Your task to perform on an android device: change your default location settings in chrome Image 0: 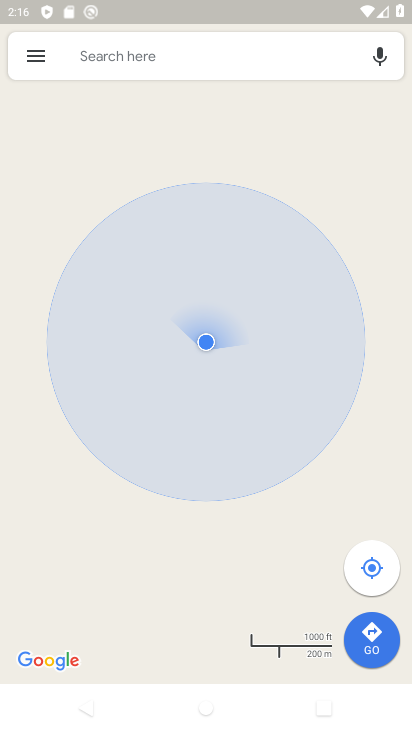
Step 0: press home button
Your task to perform on an android device: change your default location settings in chrome Image 1: 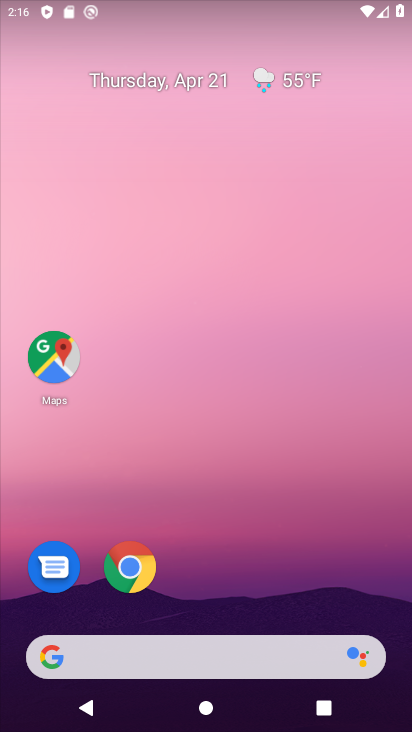
Step 1: drag from (242, 589) to (220, 59)
Your task to perform on an android device: change your default location settings in chrome Image 2: 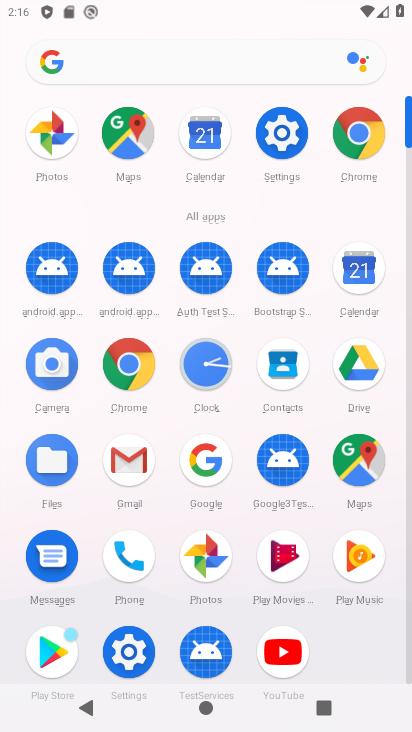
Step 2: click (130, 357)
Your task to perform on an android device: change your default location settings in chrome Image 3: 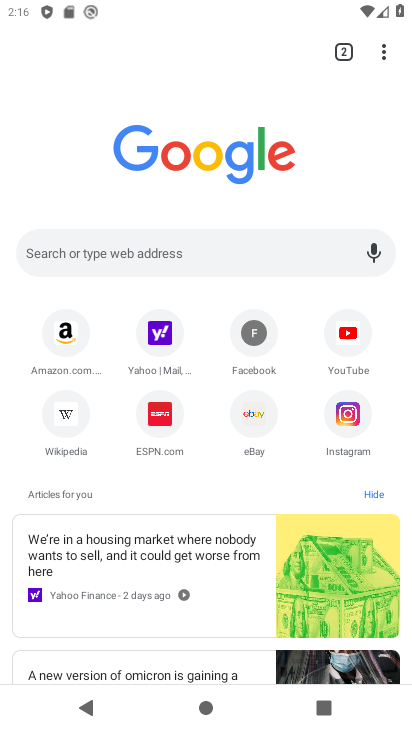
Step 3: drag from (382, 44) to (208, 500)
Your task to perform on an android device: change your default location settings in chrome Image 4: 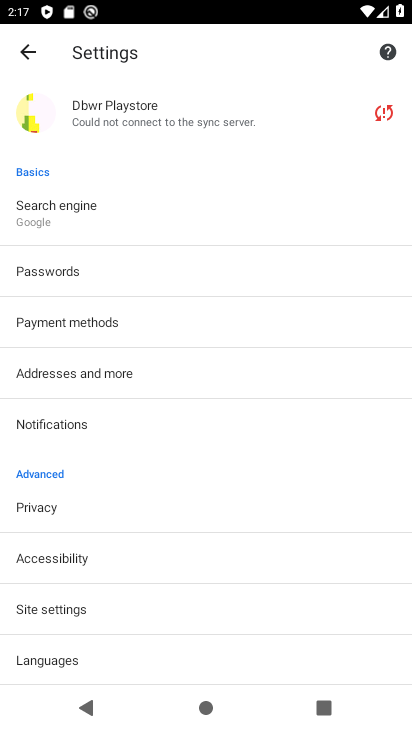
Step 4: drag from (294, 615) to (284, 336)
Your task to perform on an android device: change your default location settings in chrome Image 5: 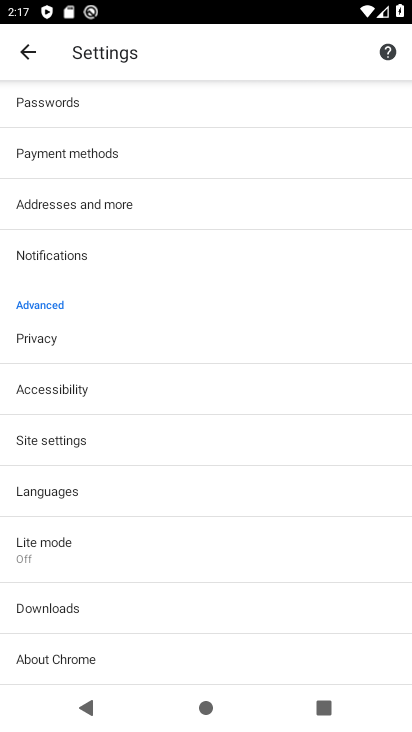
Step 5: click (47, 438)
Your task to perform on an android device: change your default location settings in chrome Image 6: 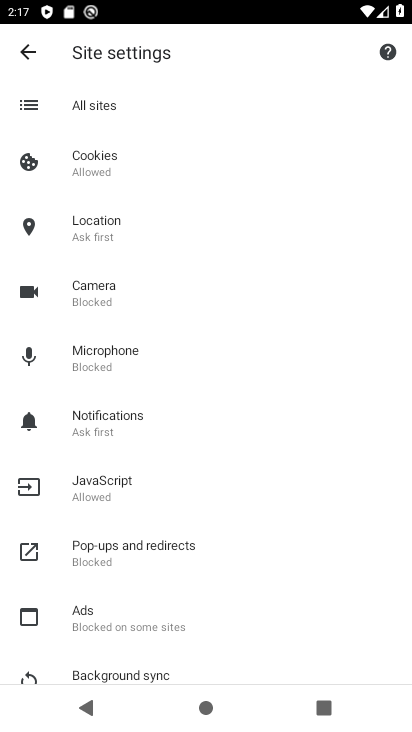
Step 6: click (97, 223)
Your task to perform on an android device: change your default location settings in chrome Image 7: 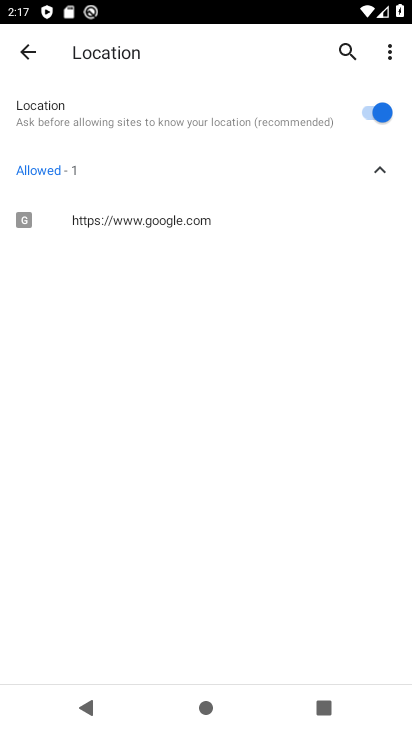
Step 7: click (373, 102)
Your task to perform on an android device: change your default location settings in chrome Image 8: 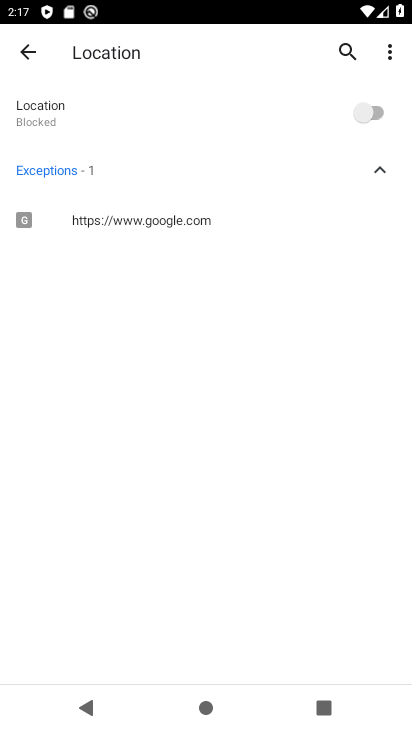
Step 8: task complete